Your task to perform on an android device: toggle wifi Image 0: 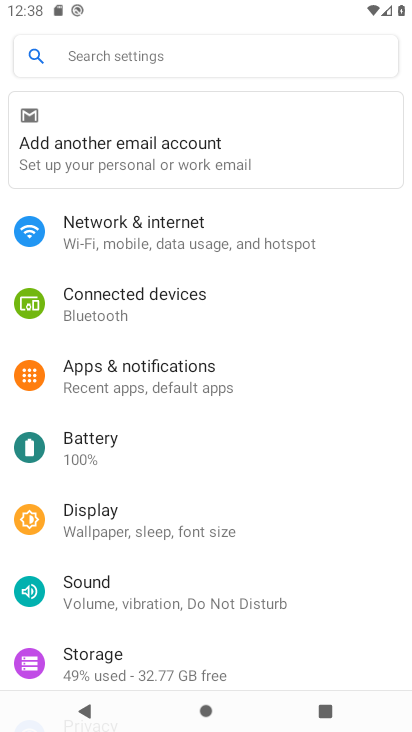
Step 0: click (196, 234)
Your task to perform on an android device: toggle wifi Image 1: 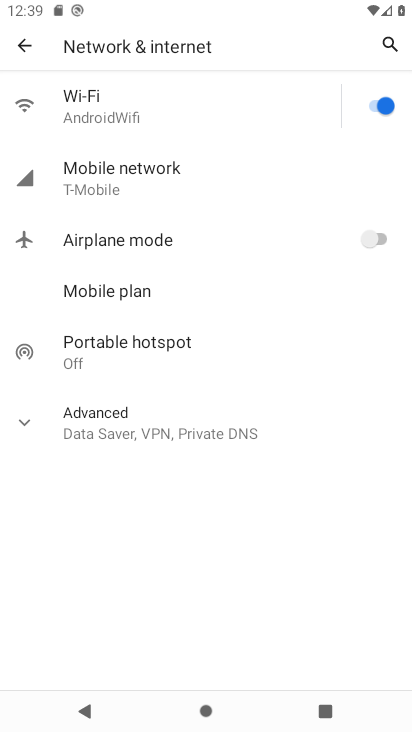
Step 1: click (256, 107)
Your task to perform on an android device: toggle wifi Image 2: 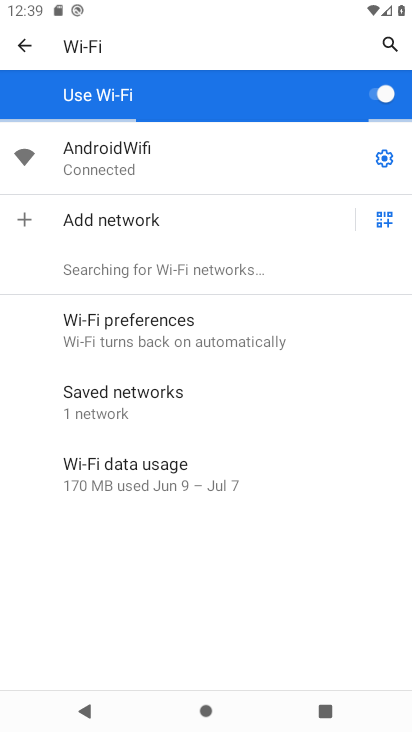
Step 2: click (377, 93)
Your task to perform on an android device: toggle wifi Image 3: 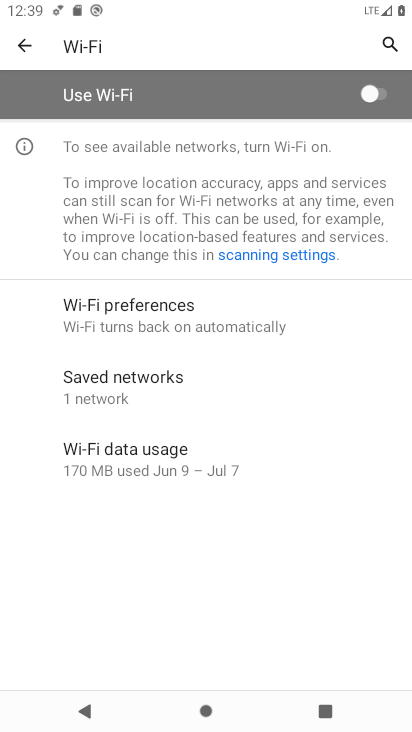
Step 3: task complete